Your task to perform on an android device: choose inbox layout in the gmail app Image 0: 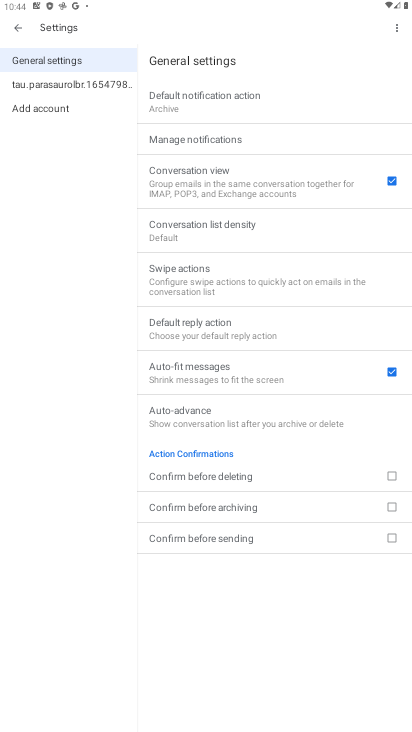
Step 0: click (9, 19)
Your task to perform on an android device: choose inbox layout in the gmail app Image 1: 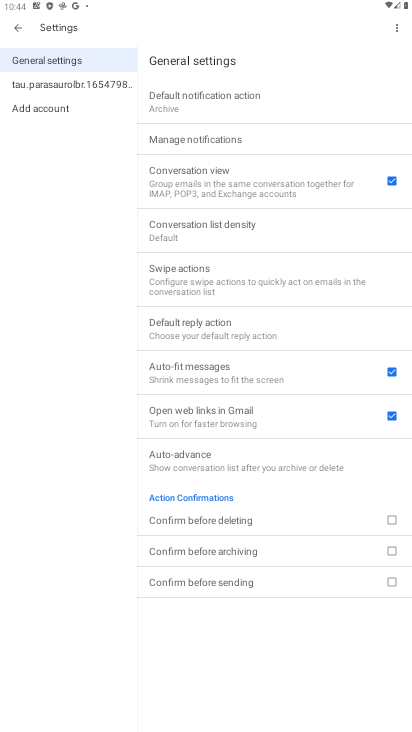
Step 1: click (9, 19)
Your task to perform on an android device: choose inbox layout in the gmail app Image 2: 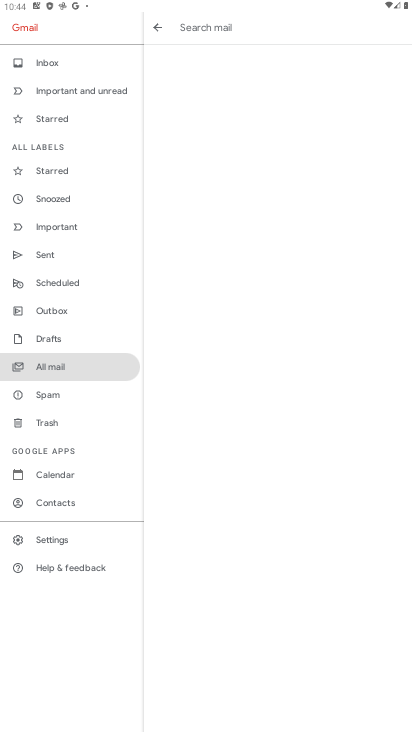
Step 2: click (42, 62)
Your task to perform on an android device: choose inbox layout in the gmail app Image 3: 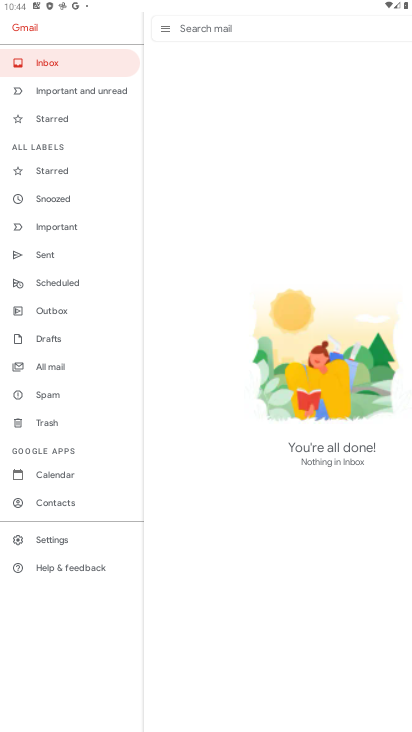
Step 3: task complete